Your task to perform on an android device: refresh tabs in the chrome app Image 0: 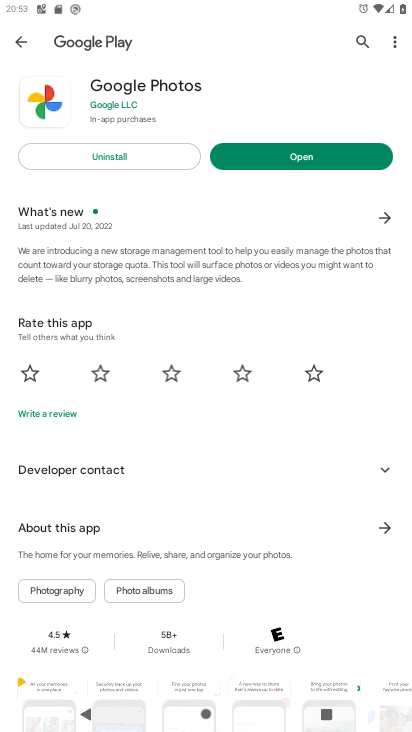
Step 0: press home button
Your task to perform on an android device: refresh tabs in the chrome app Image 1: 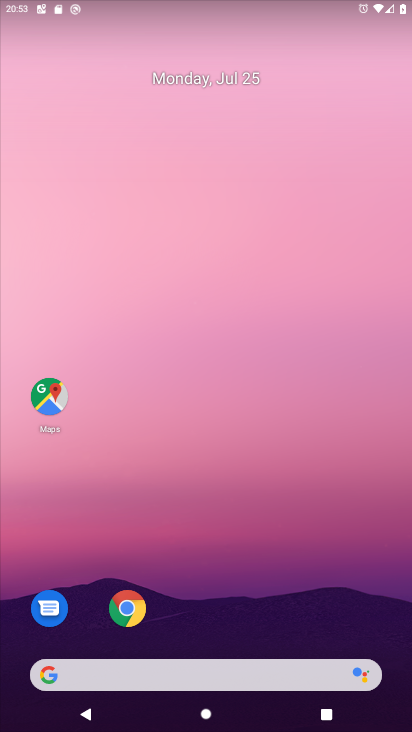
Step 1: click (133, 613)
Your task to perform on an android device: refresh tabs in the chrome app Image 2: 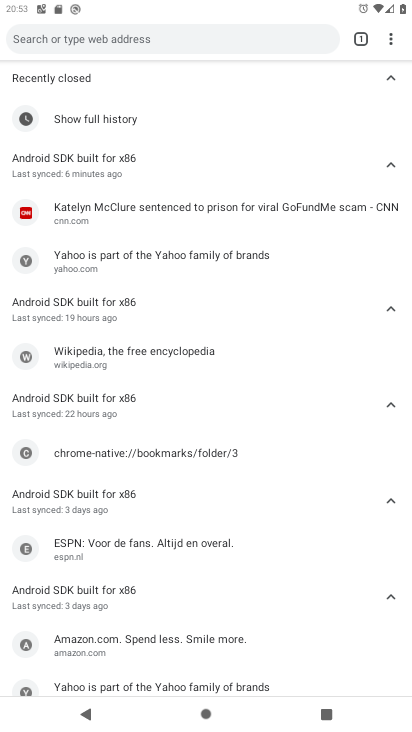
Step 2: click (387, 39)
Your task to perform on an android device: refresh tabs in the chrome app Image 3: 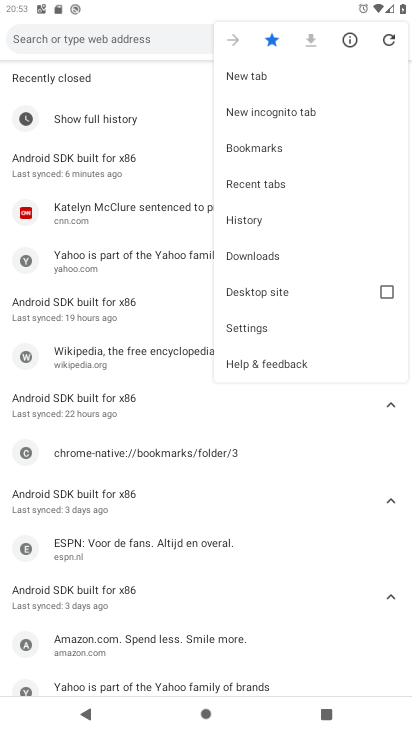
Step 3: click (399, 38)
Your task to perform on an android device: refresh tabs in the chrome app Image 4: 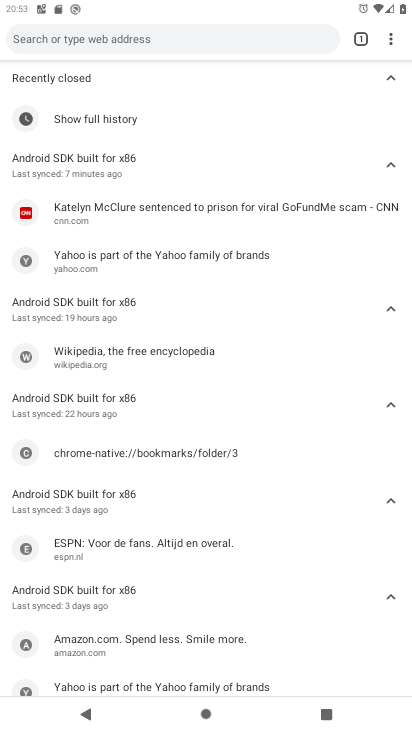
Step 4: click (396, 38)
Your task to perform on an android device: refresh tabs in the chrome app Image 5: 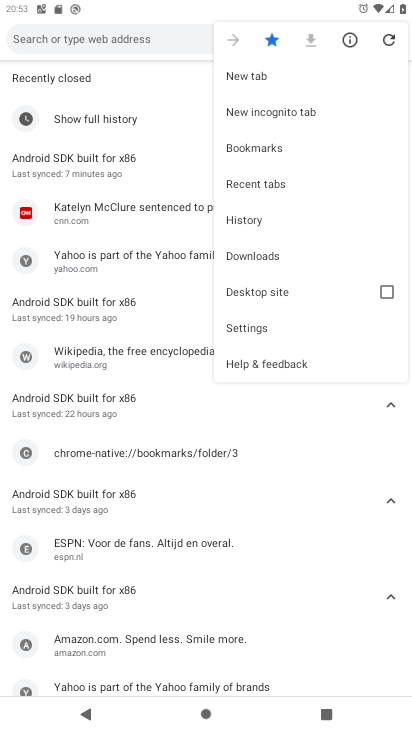
Step 5: click (396, 38)
Your task to perform on an android device: refresh tabs in the chrome app Image 6: 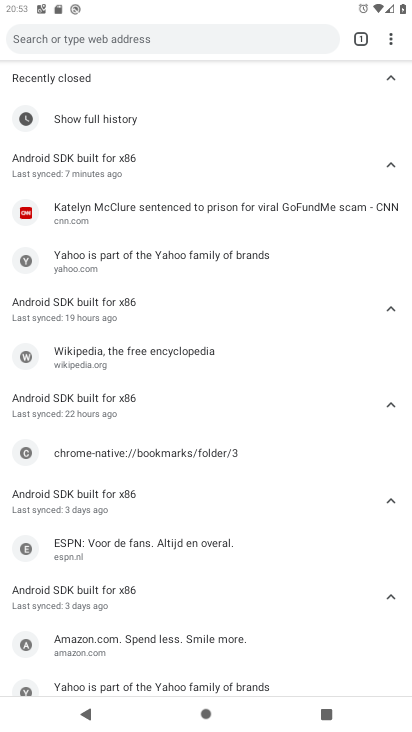
Step 6: task complete